Your task to perform on an android device: turn on sleep mode Image 0: 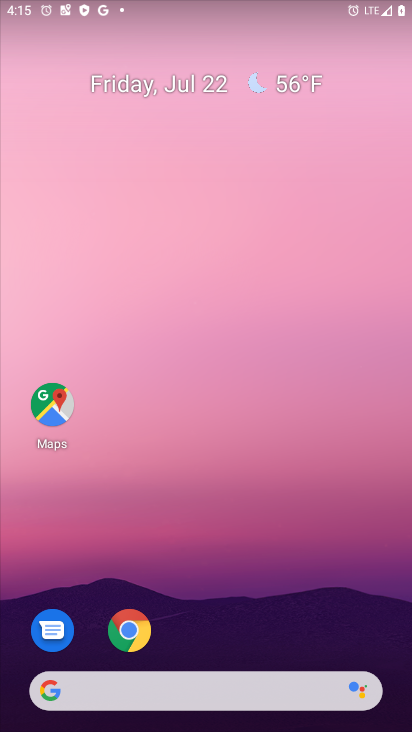
Step 0: drag from (216, 691) to (180, 343)
Your task to perform on an android device: turn on sleep mode Image 1: 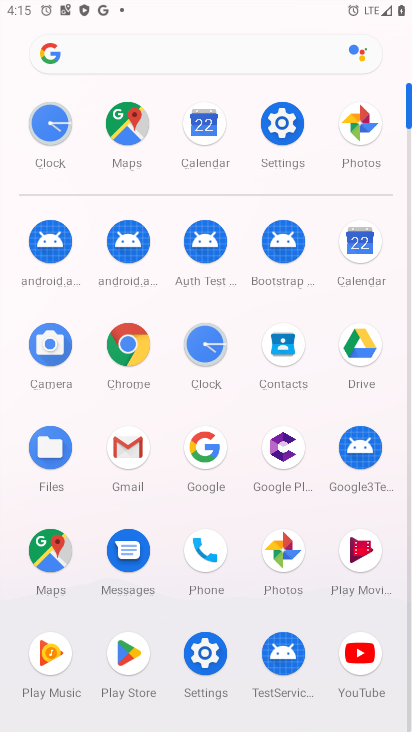
Step 1: click (218, 650)
Your task to perform on an android device: turn on sleep mode Image 2: 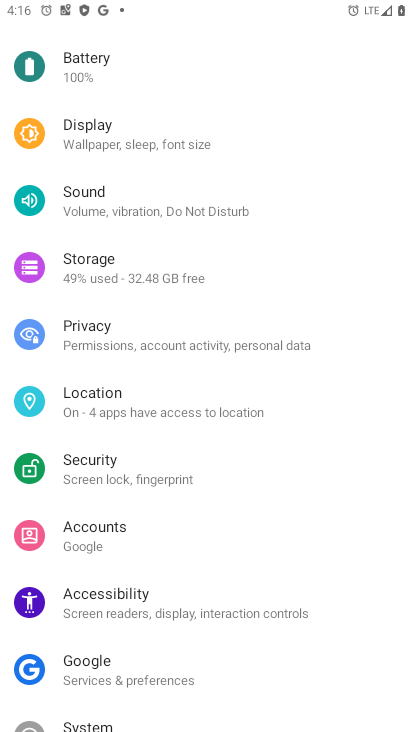
Step 2: click (82, 124)
Your task to perform on an android device: turn on sleep mode Image 3: 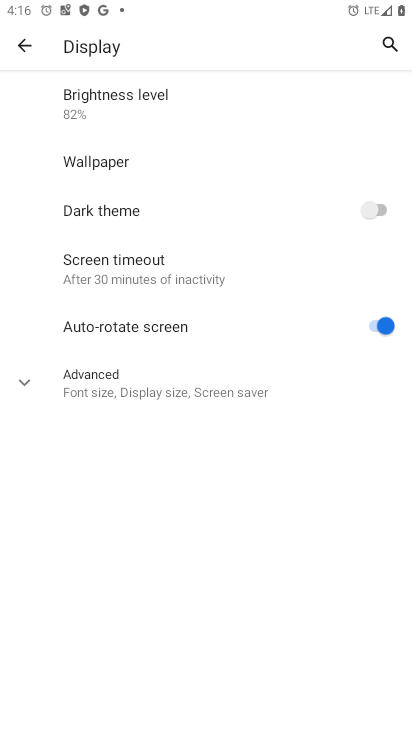
Step 3: click (198, 380)
Your task to perform on an android device: turn on sleep mode Image 4: 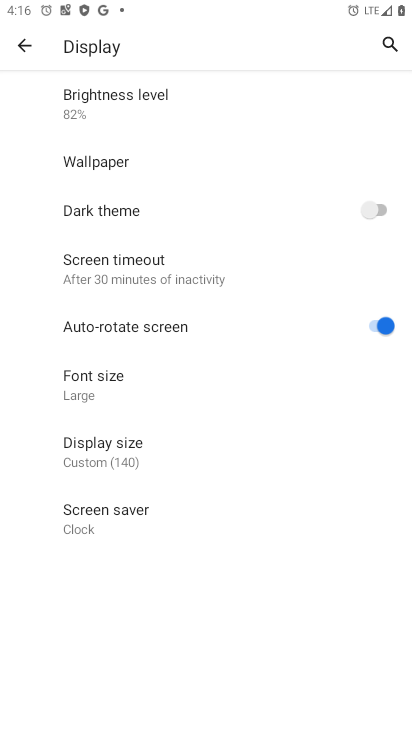
Step 4: task complete